Your task to perform on an android device: See recent photos Image 0: 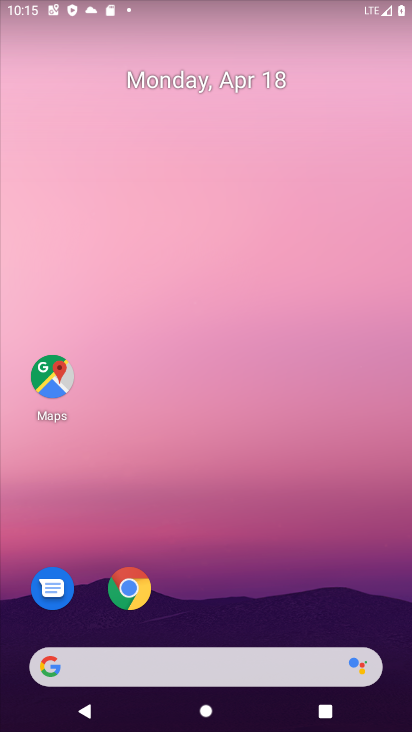
Step 0: drag from (393, 613) to (324, 245)
Your task to perform on an android device: See recent photos Image 1: 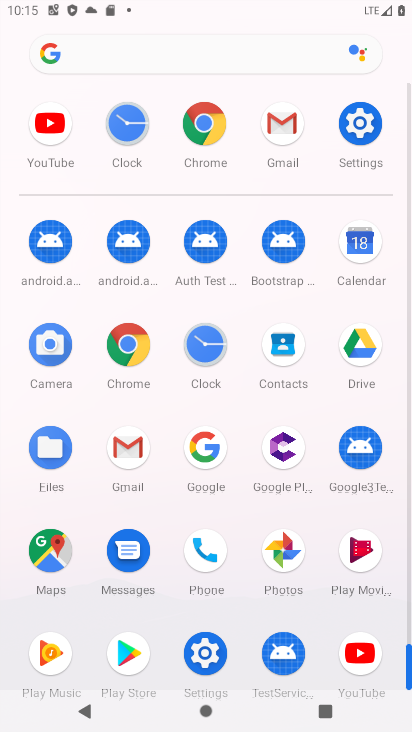
Step 1: click (283, 550)
Your task to perform on an android device: See recent photos Image 2: 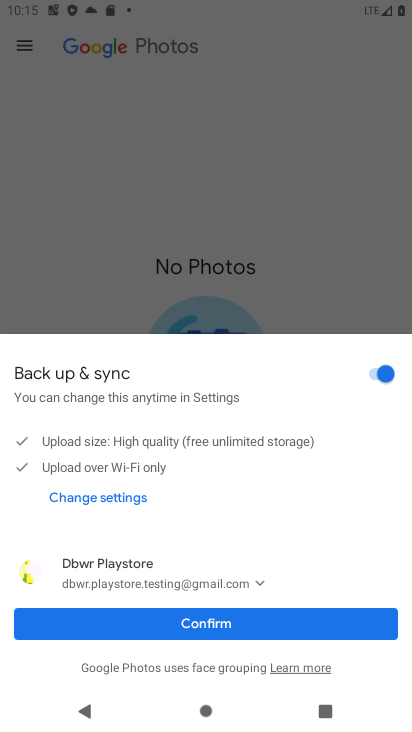
Step 2: click (216, 625)
Your task to perform on an android device: See recent photos Image 3: 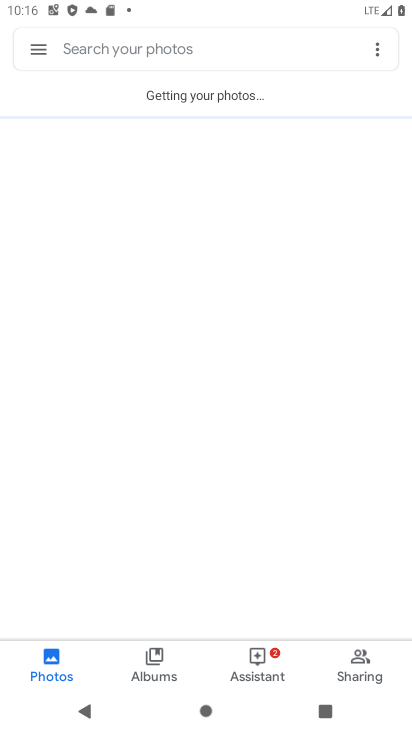
Step 3: task complete